Your task to perform on an android device: turn on improve location accuracy Image 0: 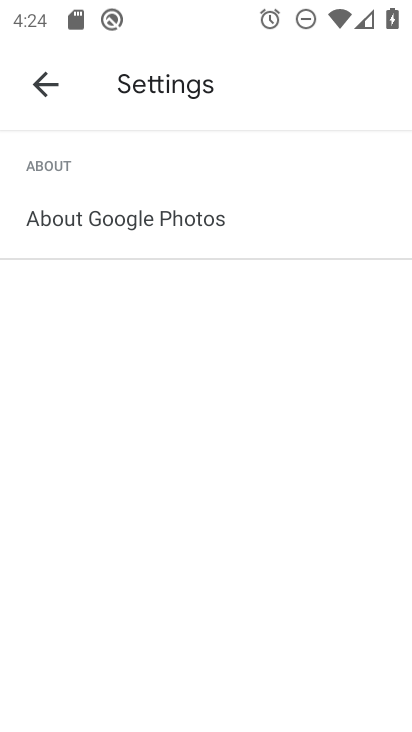
Step 0: press back button
Your task to perform on an android device: turn on improve location accuracy Image 1: 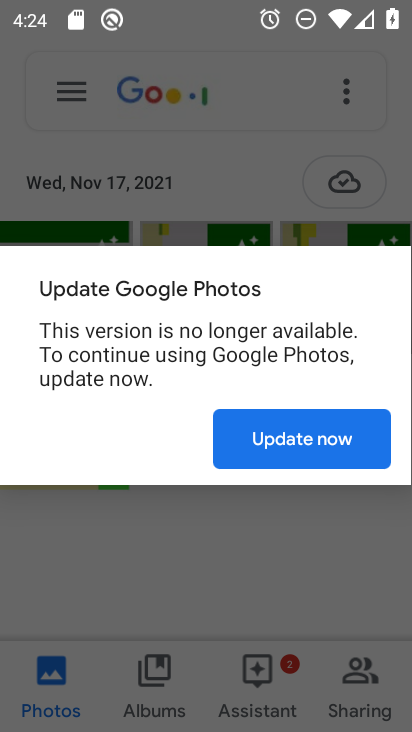
Step 1: press home button
Your task to perform on an android device: turn on improve location accuracy Image 2: 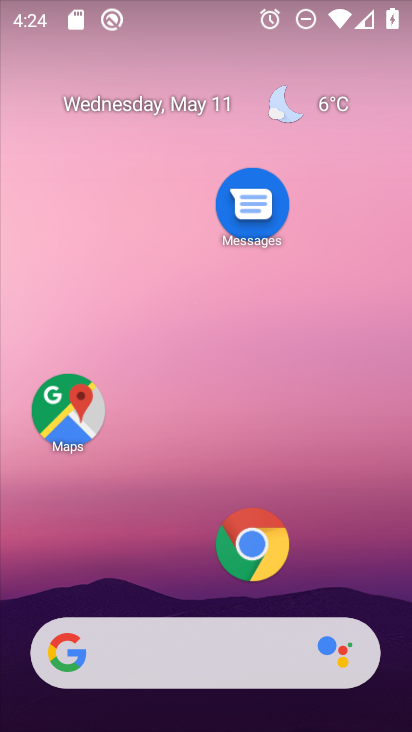
Step 2: drag from (187, 552) to (292, 6)
Your task to perform on an android device: turn on improve location accuracy Image 3: 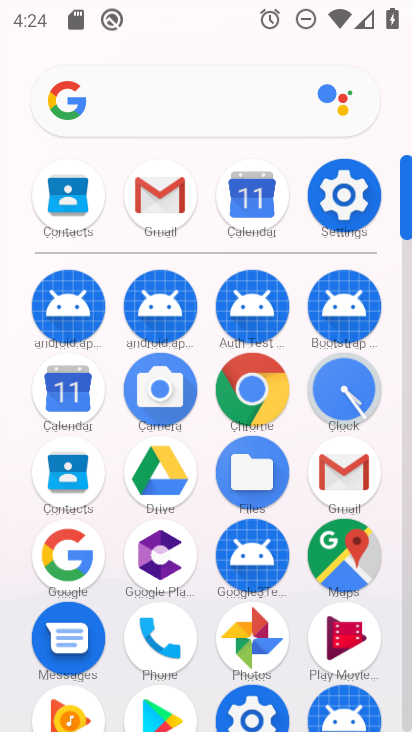
Step 3: click (351, 205)
Your task to perform on an android device: turn on improve location accuracy Image 4: 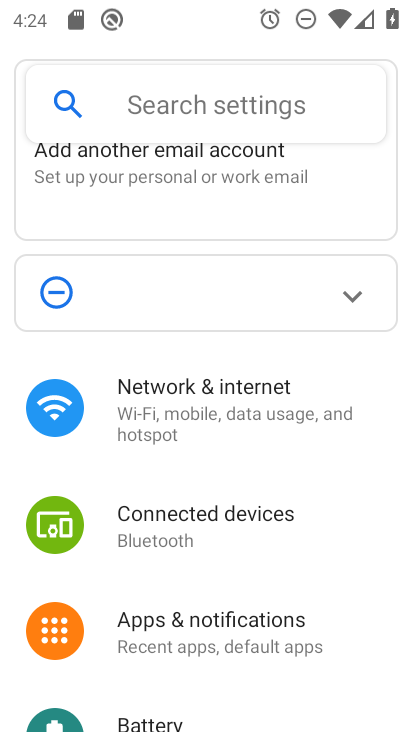
Step 4: drag from (217, 597) to (298, 75)
Your task to perform on an android device: turn on improve location accuracy Image 5: 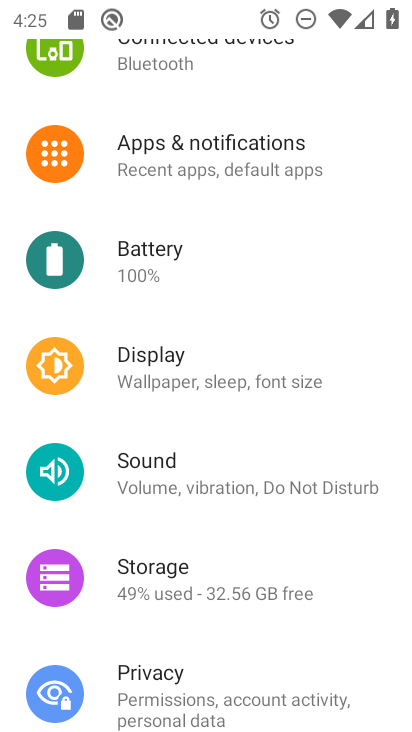
Step 5: drag from (189, 665) to (246, 290)
Your task to perform on an android device: turn on improve location accuracy Image 6: 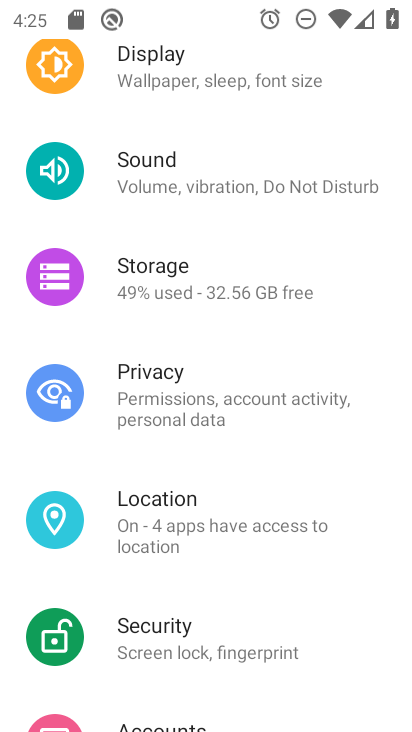
Step 6: click (177, 529)
Your task to perform on an android device: turn on improve location accuracy Image 7: 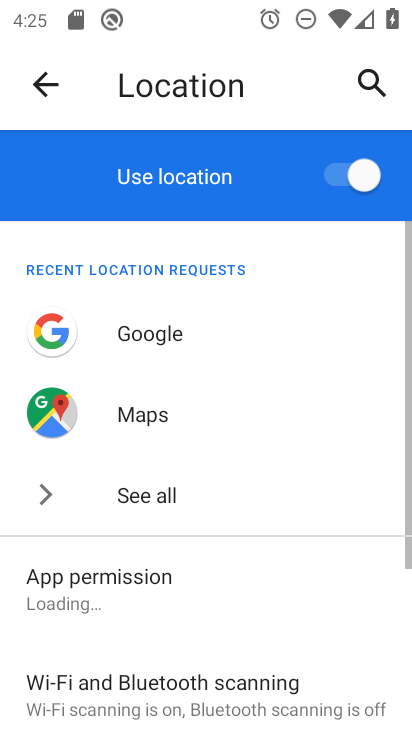
Step 7: drag from (163, 615) to (253, 72)
Your task to perform on an android device: turn on improve location accuracy Image 8: 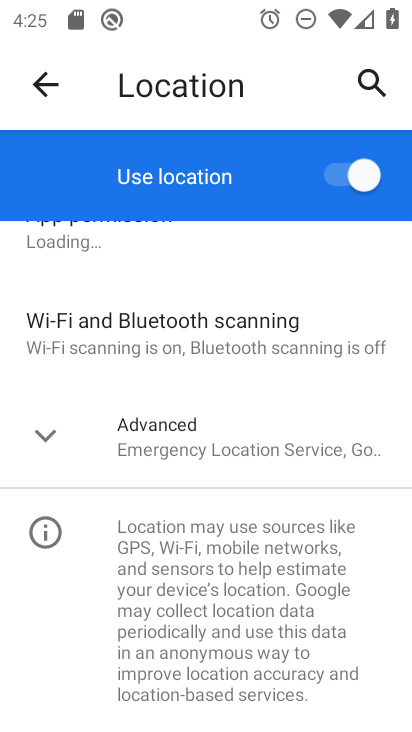
Step 8: click (173, 438)
Your task to perform on an android device: turn on improve location accuracy Image 9: 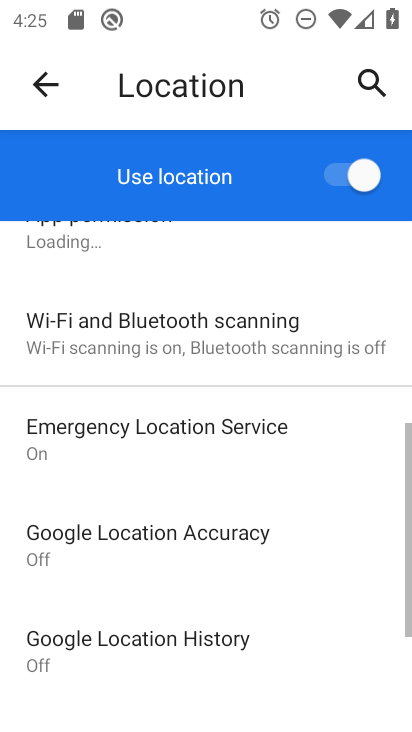
Step 9: drag from (164, 547) to (198, 278)
Your task to perform on an android device: turn on improve location accuracy Image 10: 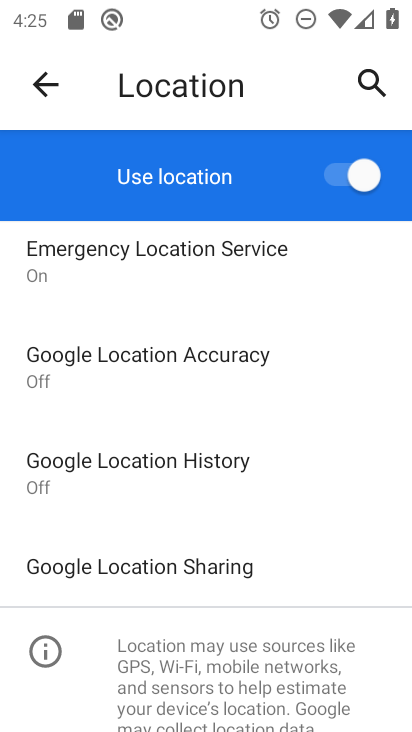
Step 10: click (199, 357)
Your task to perform on an android device: turn on improve location accuracy Image 11: 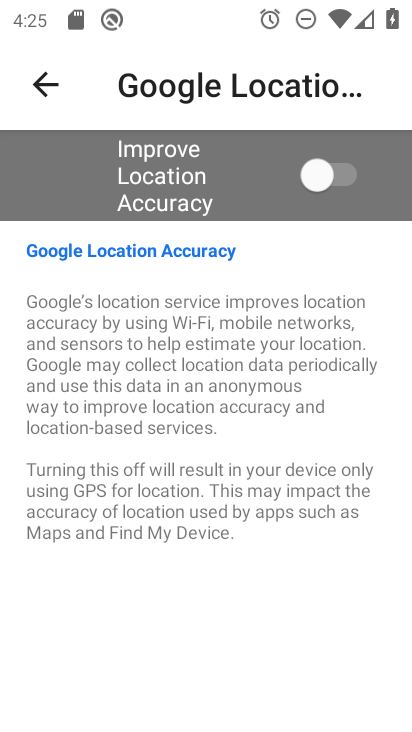
Step 11: click (318, 172)
Your task to perform on an android device: turn on improve location accuracy Image 12: 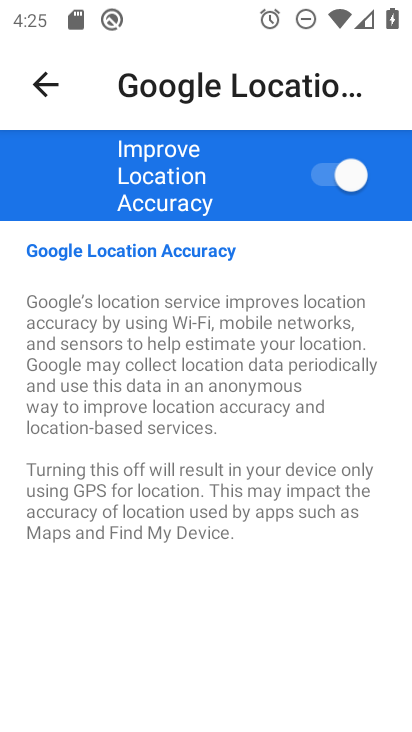
Step 12: task complete